Your task to perform on an android device: open a new tab in the chrome app Image 0: 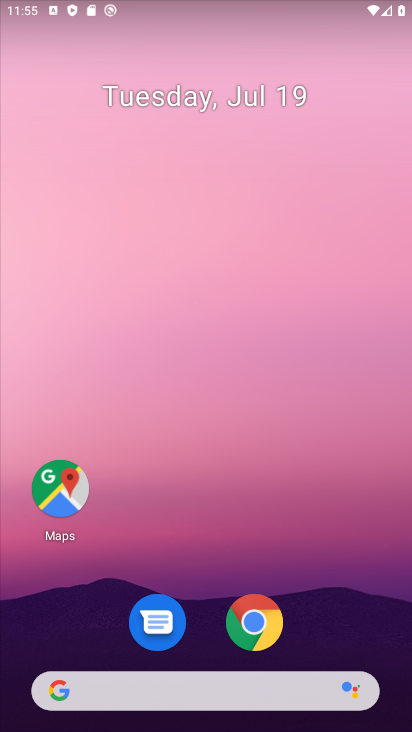
Step 0: click (240, 605)
Your task to perform on an android device: open a new tab in the chrome app Image 1: 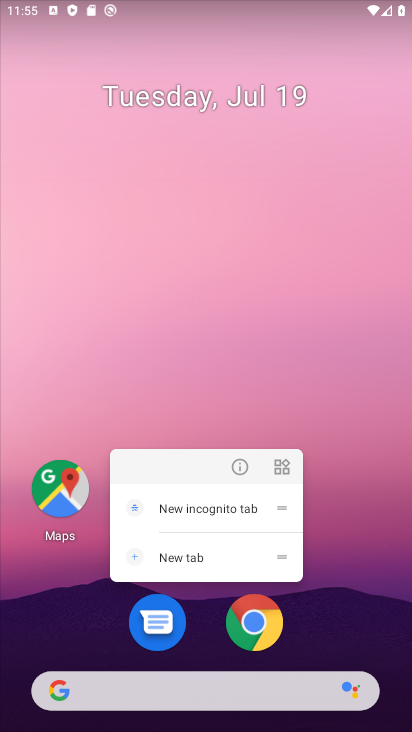
Step 1: click (239, 605)
Your task to perform on an android device: open a new tab in the chrome app Image 2: 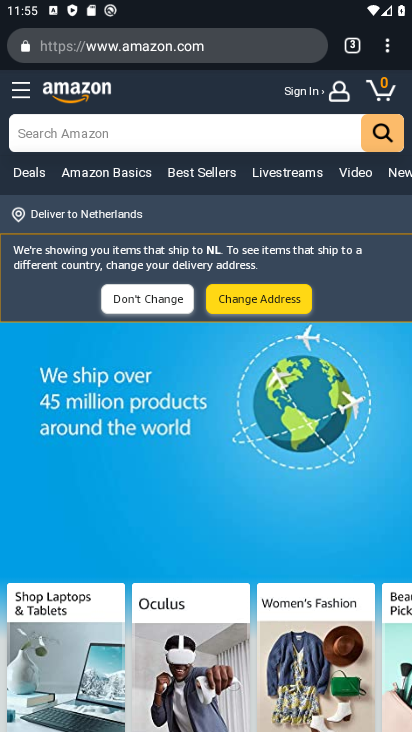
Step 2: click (346, 47)
Your task to perform on an android device: open a new tab in the chrome app Image 3: 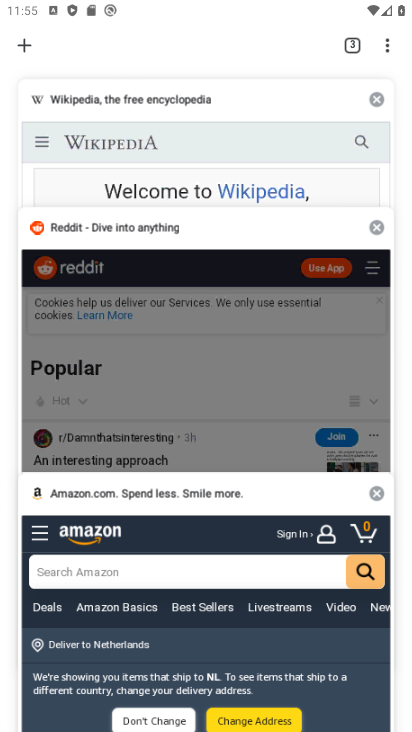
Step 3: click (34, 55)
Your task to perform on an android device: open a new tab in the chrome app Image 4: 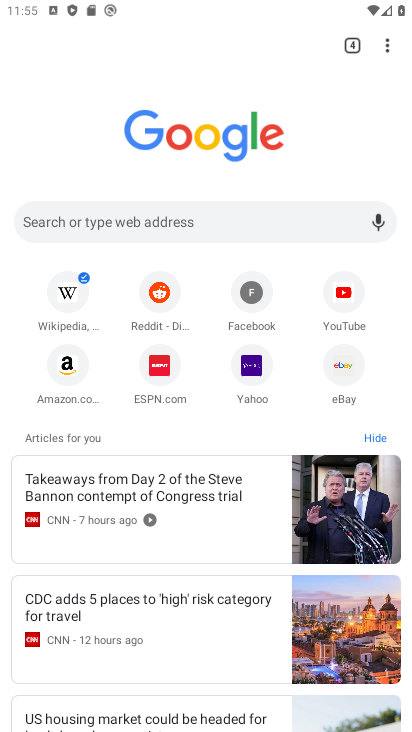
Step 4: task complete